Your task to perform on an android device: Do I have any events today? Image 0: 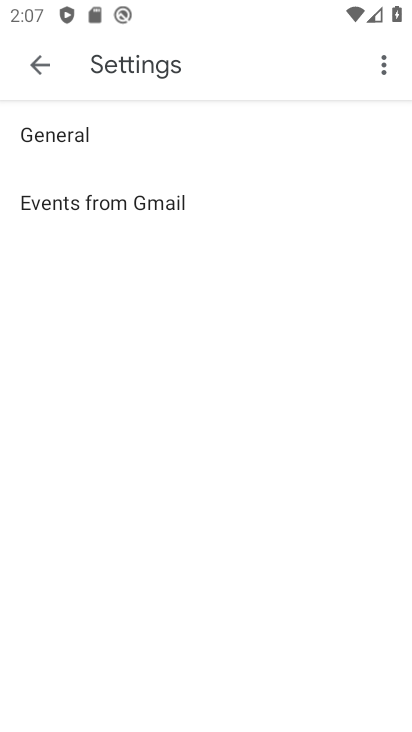
Step 0: press back button
Your task to perform on an android device: Do I have any events today? Image 1: 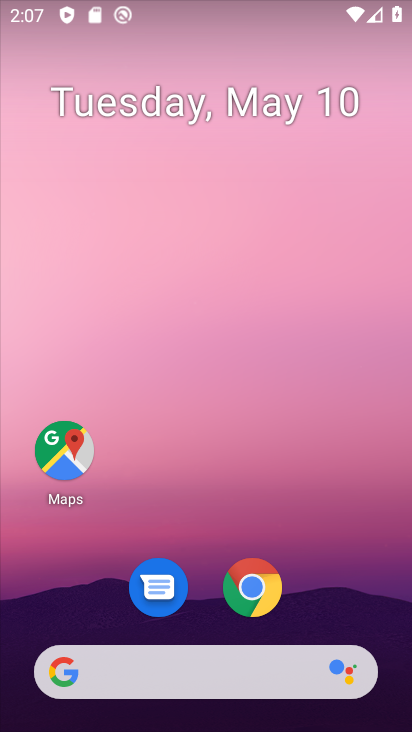
Step 1: drag from (94, 643) to (237, 160)
Your task to perform on an android device: Do I have any events today? Image 2: 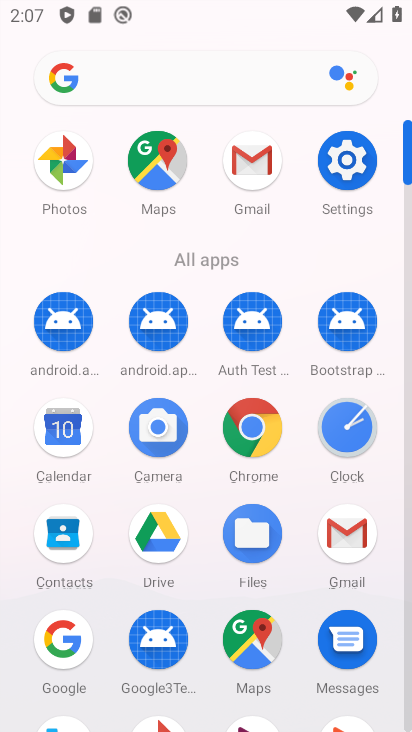
Step 2: click (66, 432)
Your task to perform on an android device: Do I have any events today? Image 3: 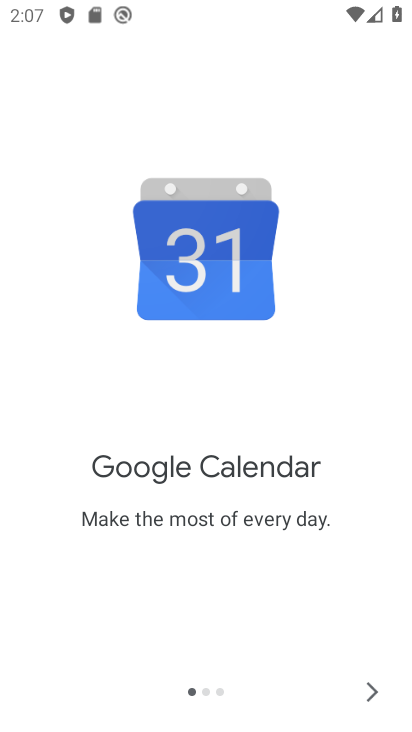
Step 3: click (390, 697)
Your task to perform on an android device: Do I have any events today? Image 4: 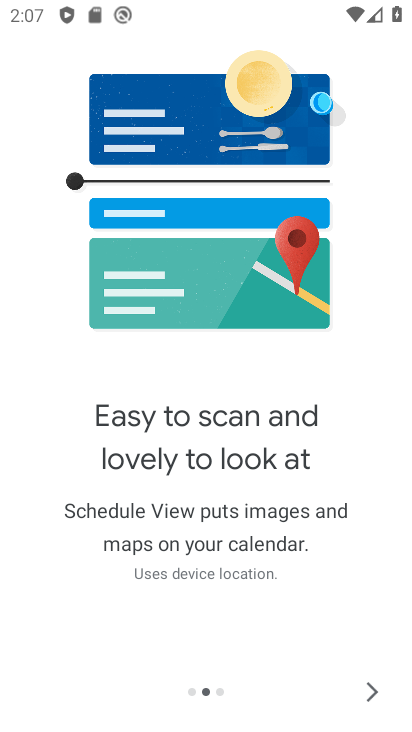
Step 4: click (389, 692)
Your task to perform on an android device: Do I have any events today? Image 5: 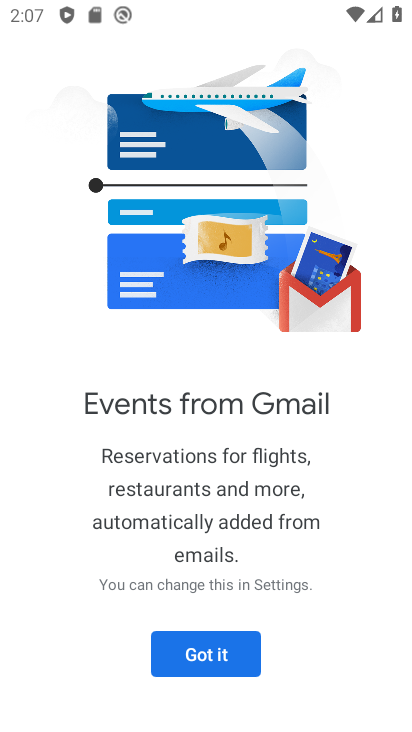
Step 5: click (233, 661)
Your task to perform on an android device: Do I have any events today? Image 6: 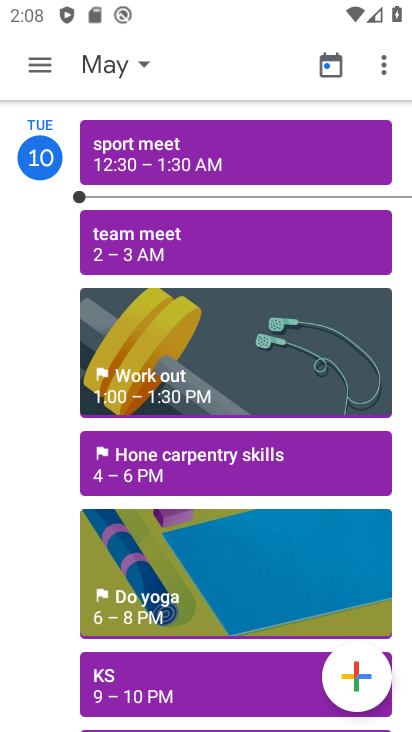
Step 6: task complete